Your task to perform on an android device: open a bookmark in the chrome app Image 0: 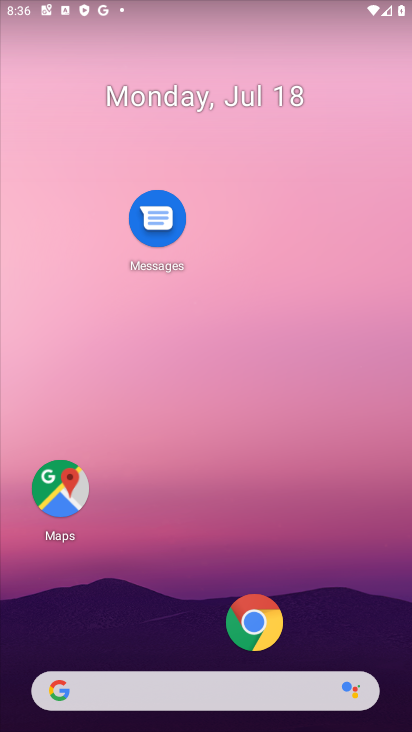
Step 0: drag from (172, 678) to (238, 63)
Your task to perform on an android device: open a bookmark in the chrome app Image 1: 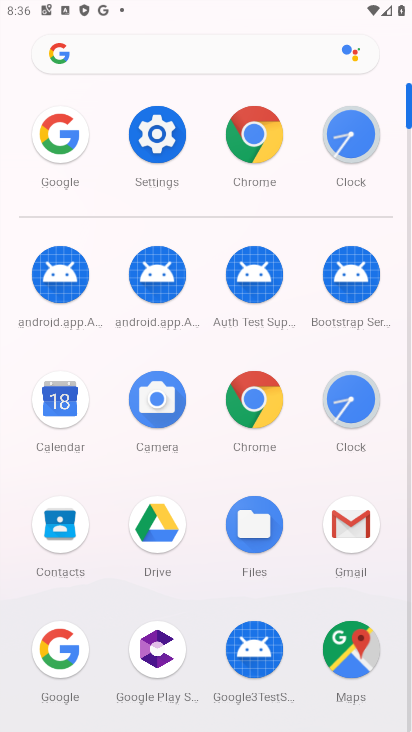
Step 1: click (252, 403)
Your task to perform on an android device: open a bookmark in the chrome app Image 2: 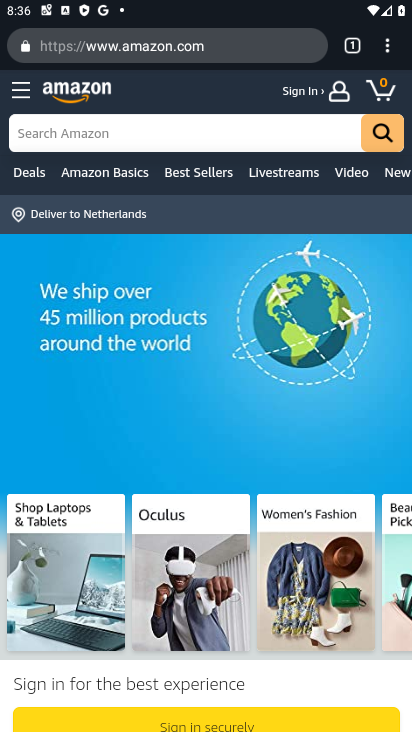
Step 2: click (385, 57)
Your task to perform on an android device: open a bookmark in the chrome app Image 3: 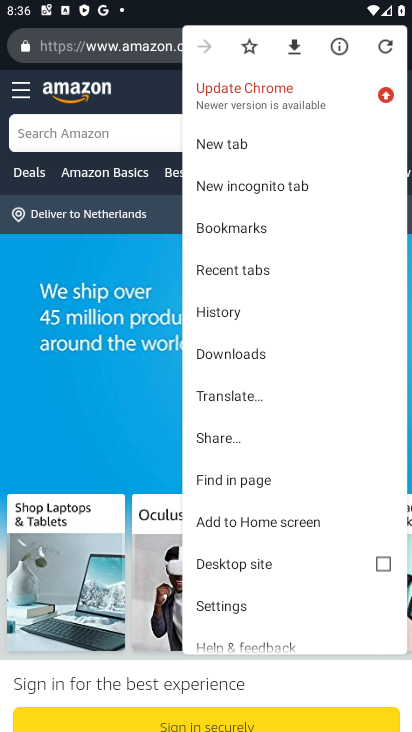
Step 3: click (241, 227)
Your task to perform on an android device: open a bookmark in the chrome app Image 4: 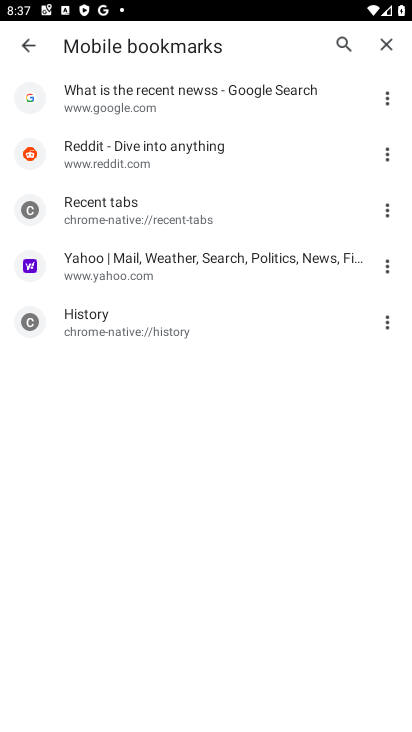
Step 4: click (165, 258)
Your task to perform on an android device: open a bookmark in the chrome app Image 5: 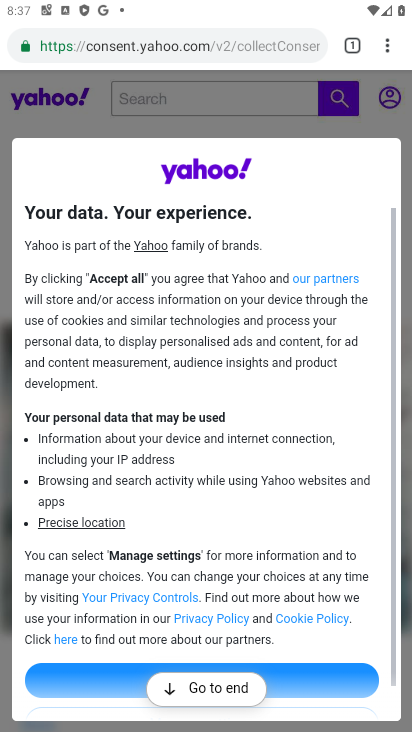
Step 5: task complete